Your task to perform on an android device: turn on showing notifications on the lock screen Image 0: 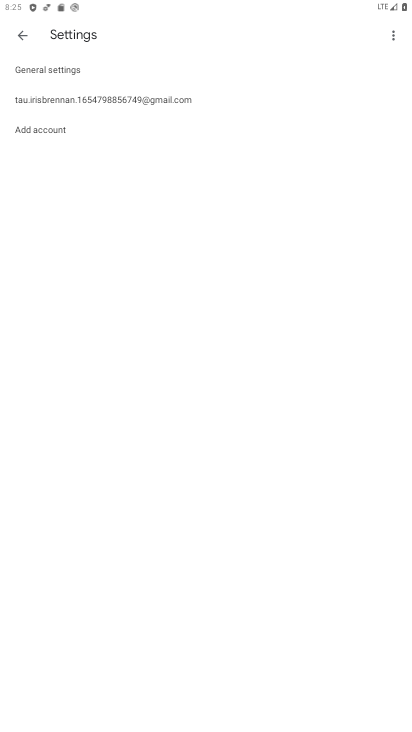
Step 0: press home button
Your task to perform on an android device: turn on showing notifications on the lock screen Image 1: 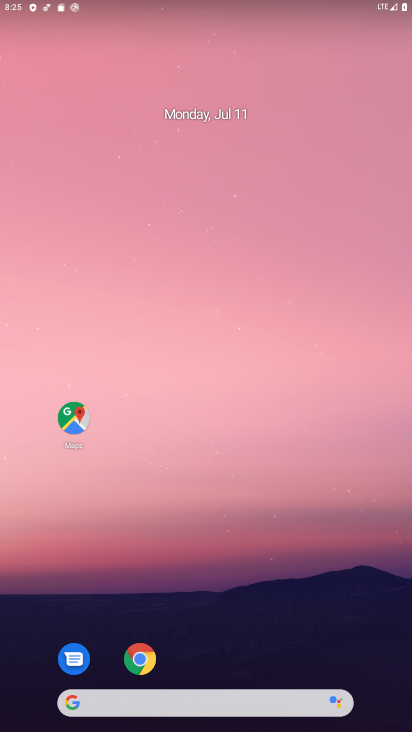
Step 1: drag from (209, 661) to (217, 6)
Your task to perform on an android device: turn on showing notifications on the lock screen Image 2: 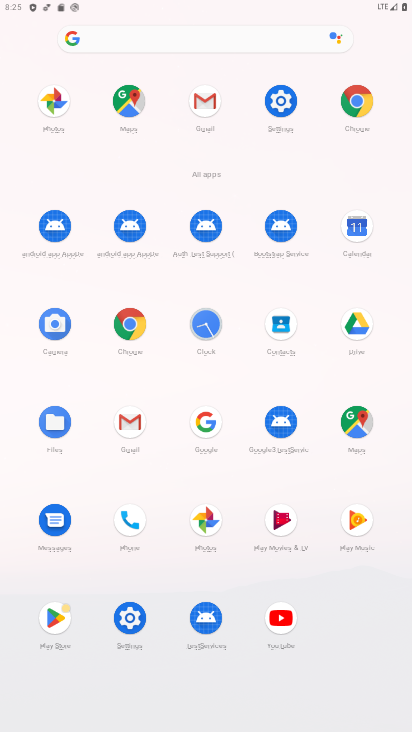
Step 2: click (131, 630)
Your task to perform on an android device: turn on showing notifications on the lock screen Image 3: 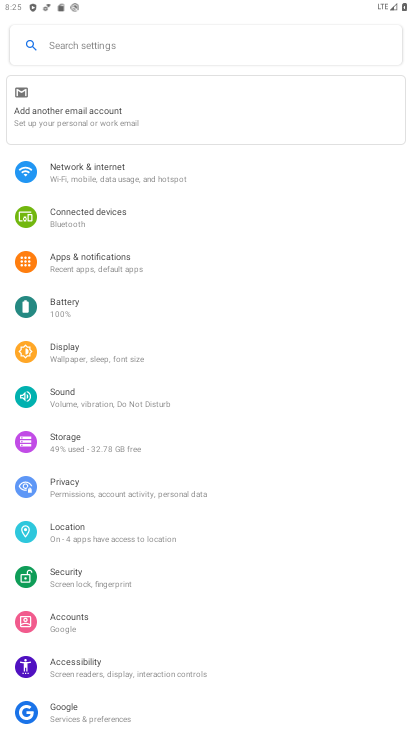
Step 3: click (118, 267)
Your task to perform on an android device: turn on showing notifications on the lock screen Image 4: 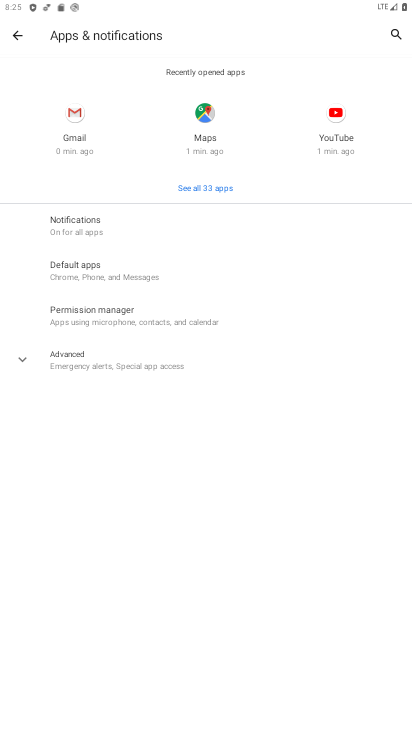
Step 4: click (81, 231)
Your task to perform on an android device: turn on showing notifications on the lock screen Image 5: 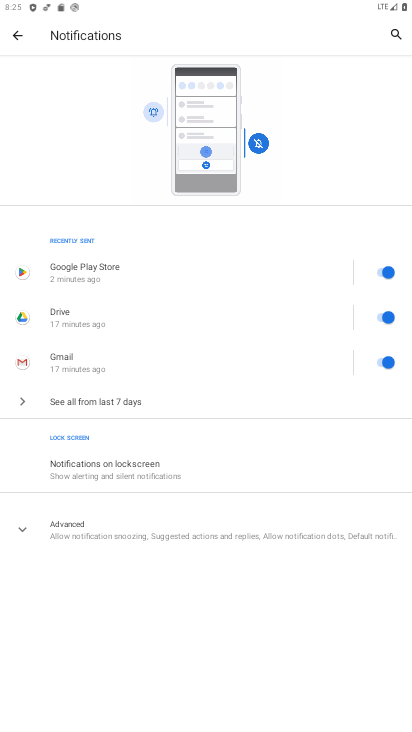
Step 5: click (130, 476)
Your task to perform on an android device: turn on showing notifications on the lock screen Image 6: 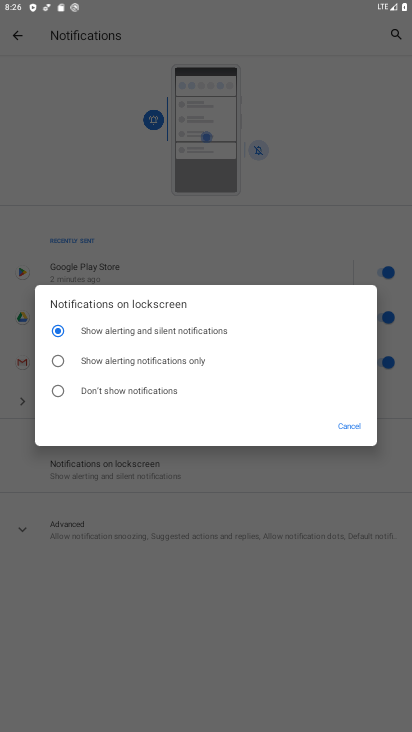
Step 6: task complete